Your task to perform on an android device: Open Google Maps Image 0: 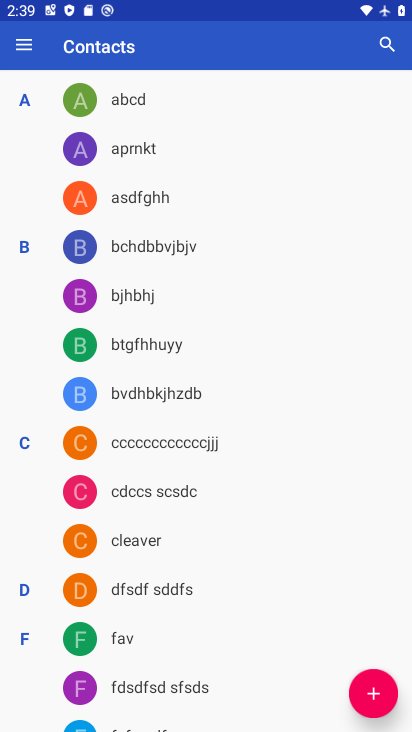
Step 0: press home button
Your task to perform on an android device: Open Google Maps Image 1: 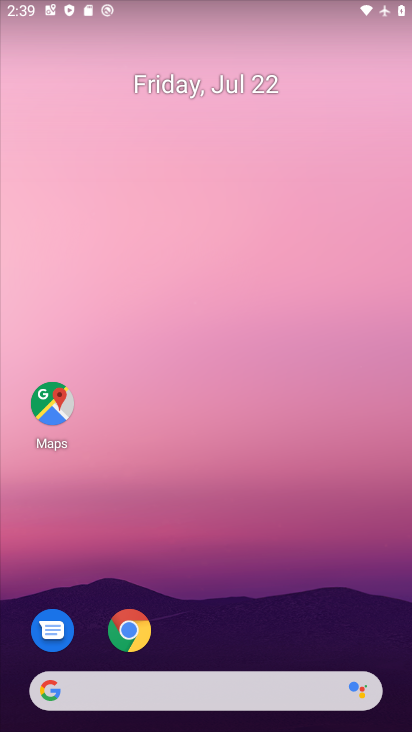
Step 1: drag from (227, 654) to (213, 77)
Your task to perform on an android device: Open Google Maps Image 2: 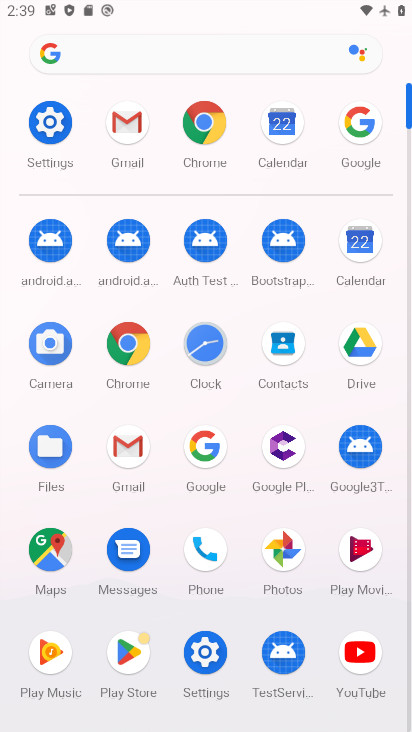
Step 2: click (57, 523)
Your task to perform on an android device: Open Google Maps Image 3: 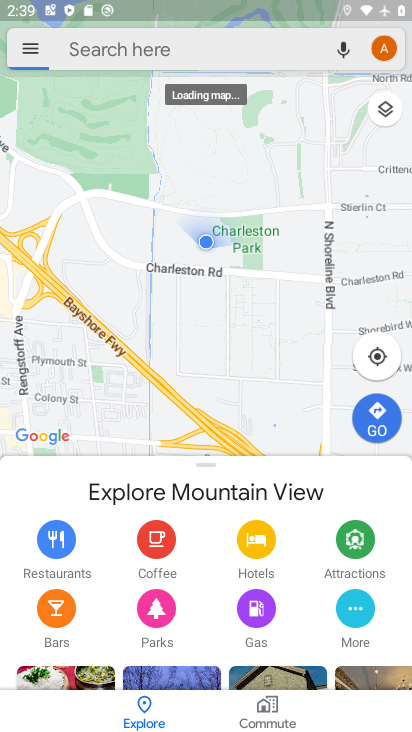
Step 3: task complete